Your task to perform on an android device: search for starred emails in the gmail app Image 0: 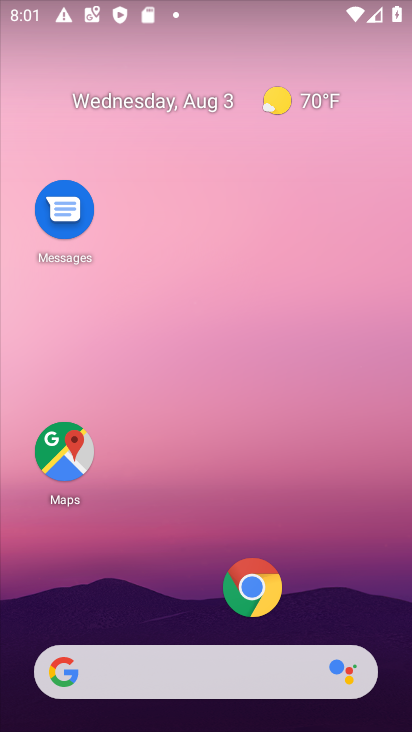
Step 0: drag from (196, 549) to (176, 347)
Your task to perform on an android device: search for starred emails in the gmail app Image 1: 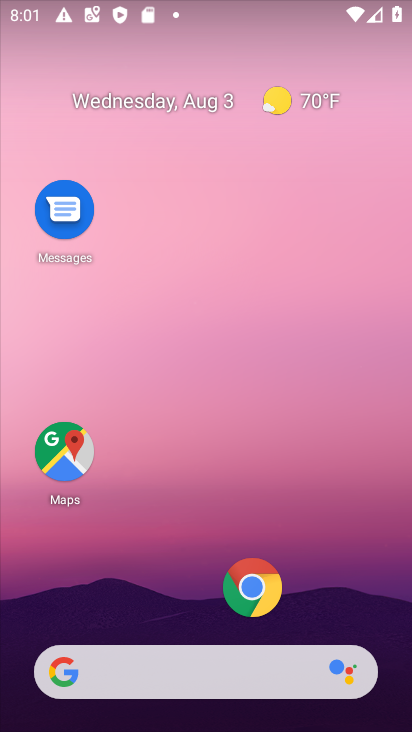
Step 1: drag from (165, 517) to (169, 20)
Your task to perform on an android device: search for starred emails in the gmail app Image 2: 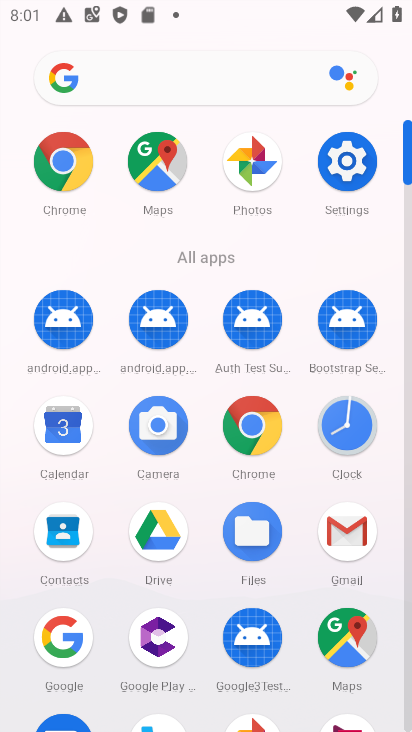
Step 2: click (359, 526)
Your task to perform on an android device: search for starred emails in the gmail app Image 3: 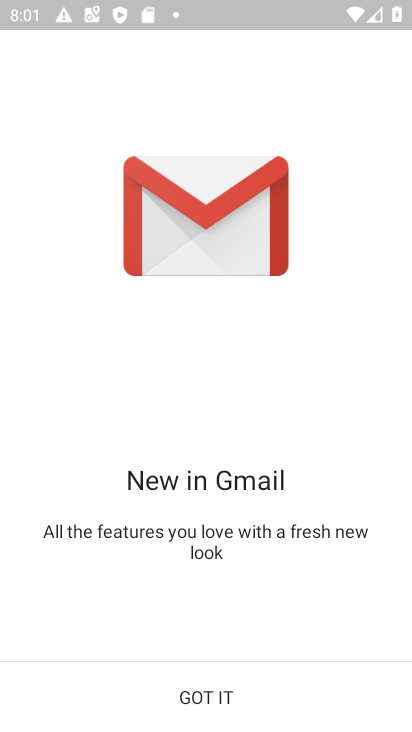
Step 3: click (191, 682)
Your task to perform on an android device: search for starred emails in the gmail app Image 4: 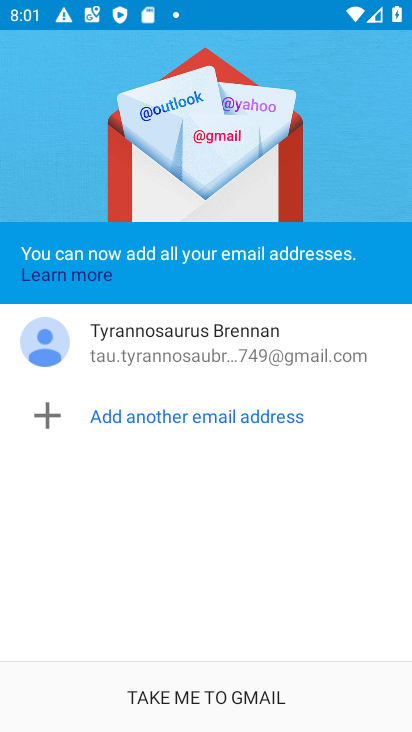
Step 4: click (191, 682)
Your task to perform on an android device: search for starred emails in the gmail app Image 5: 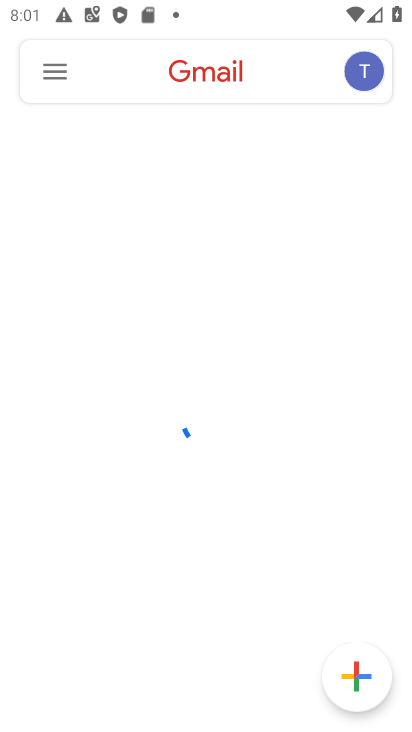
Step 5: click (63, 70)
Your task to perform on an android device: search for starred emails in the gmail app Image 6: 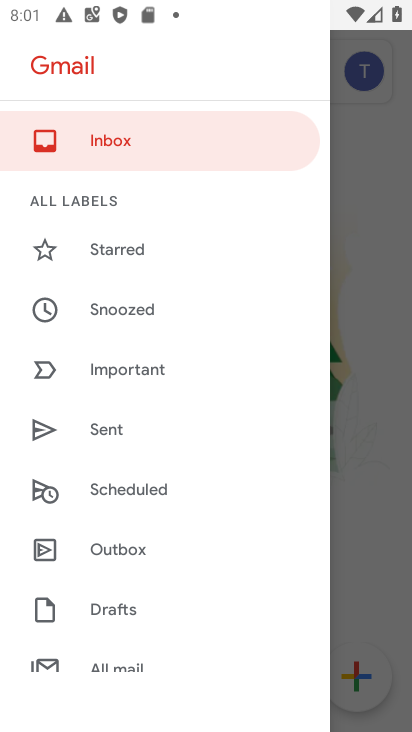
Step 6: click (112, 255)
Your task to perform on an android device: search for starred emails in the gmail app Image 7: 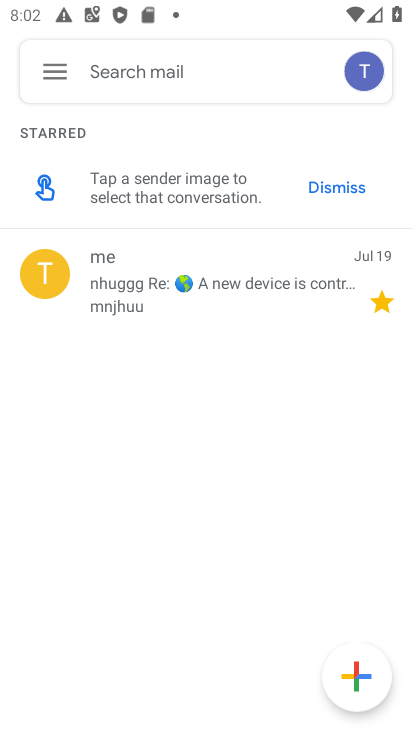
Step 7: task complete